Your task to perform on an android device: turn on priority inbox in the gmail app Image 0: 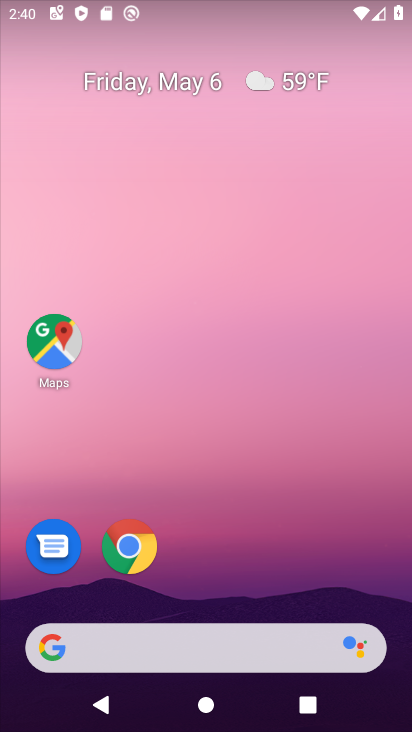
Step 0: drag from (249, 540) to (219, 97)
Your task to perform on an android device: turn on priority inbox in the gmail app Image 1: 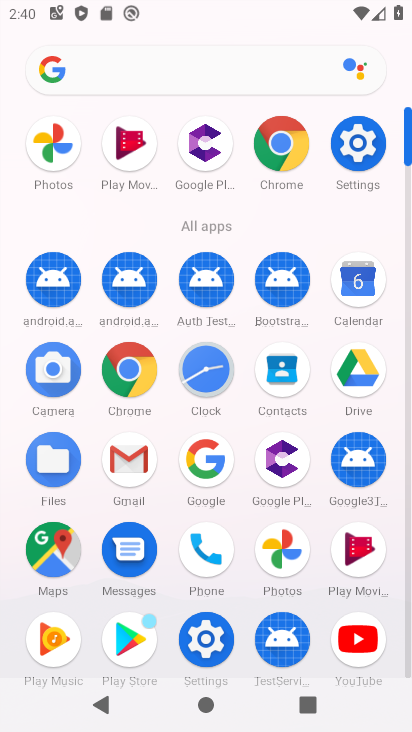
Step 1: click (126, 464)
Your task to perform on an android device: turn on priority inbox in the gmail app Image 2: 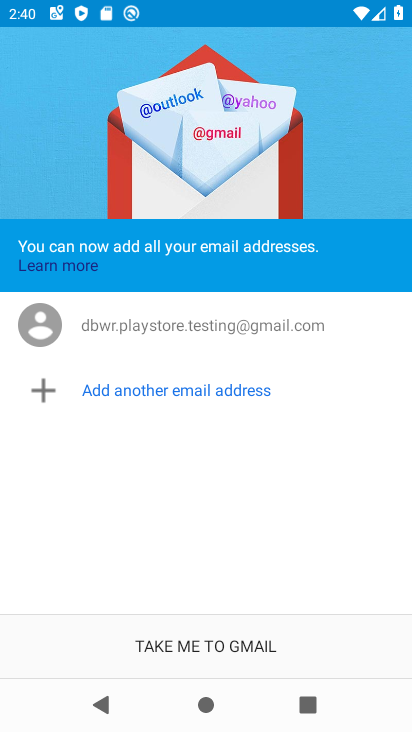
Step 2: click (223, 642)
Your task to perform on an android device: turn on priority inbox in the gmail app Image 3: 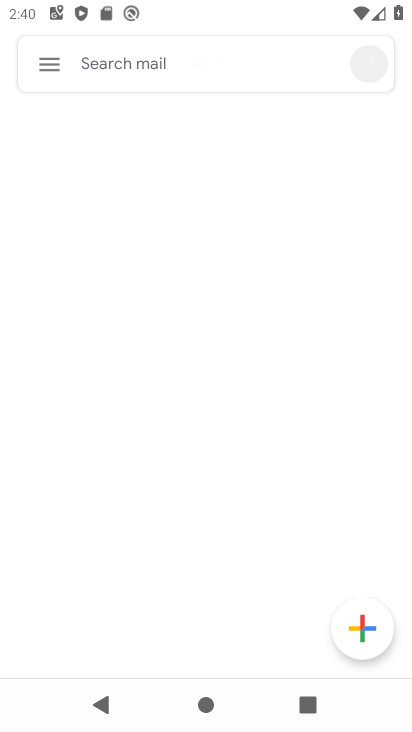
Step 3: click (48, 58)
Your task to perform on an android device: turn on priority inbox in the gmail app Image 4: 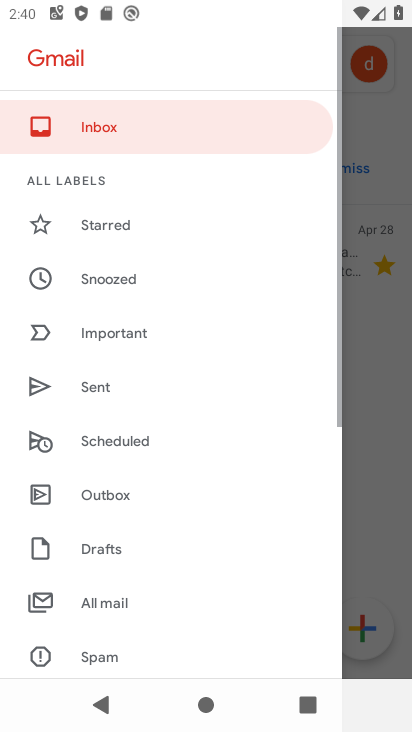
Step 4: drag from (147, 615) to (145, 236)
Your task to perform on an android device: turn on priority inbox in the gmail app Image 5: 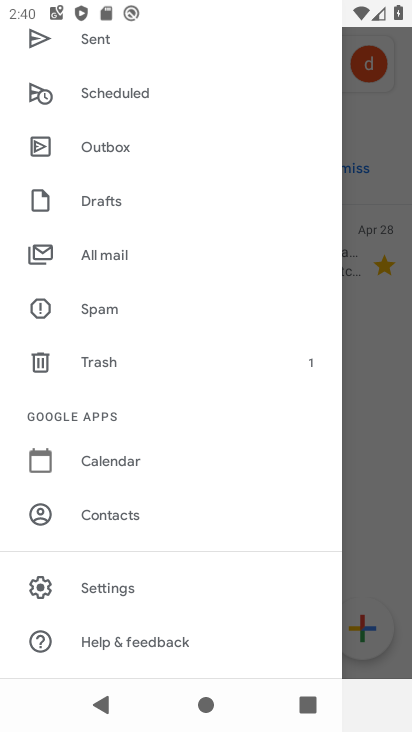
Step 5: click (134, 593)
Your task to perform on an android device: turn on priority inbox in the gmail app Image 6: 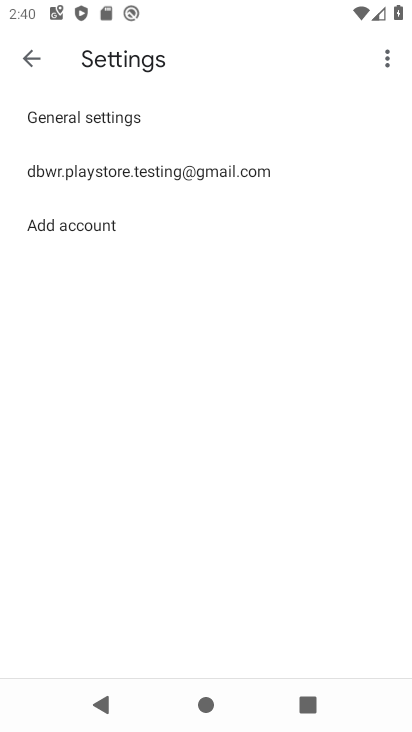
Step 6: click (164, 172)
Your task to perform on an android device: turn on priority inbox in the gmail app Image 7: 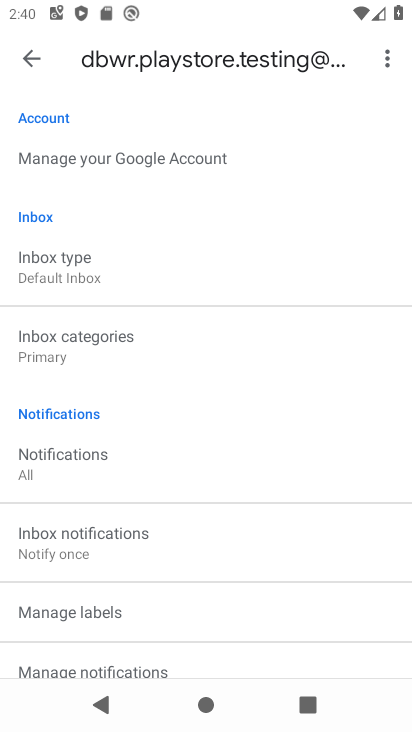
Step 7: click (82, 269)
Your task to perform on an android device: turn on priority inbox in the gmail app Image 8: 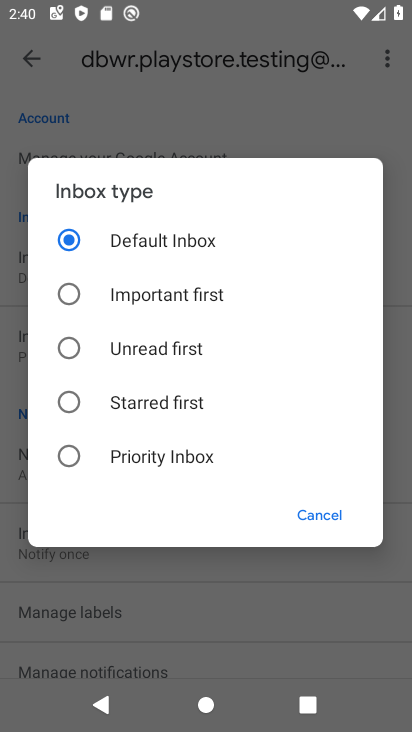
Step 8: click (69, 452)
Your task to perform on an android device: turn on priority inbox in the gmail app Image 9: 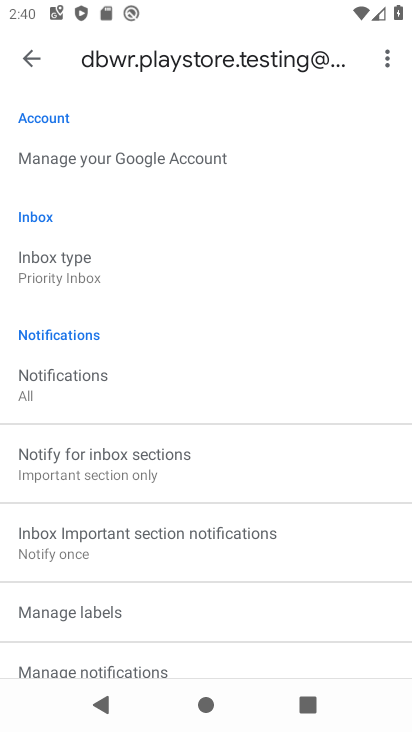
Step 9: task complete